Your task to perform on an android device: search for starred emails in the gmail app Image 0: 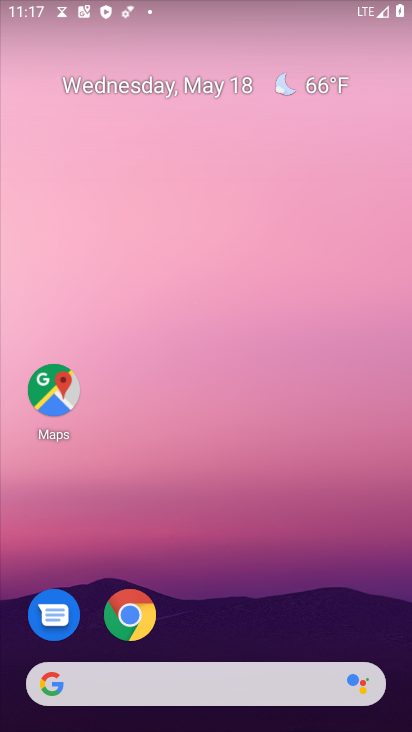
Step 0: drag from (232, 553) to (169, 13)
Your task to perform on an android device: search for starred emails in the gmail app Image 1: 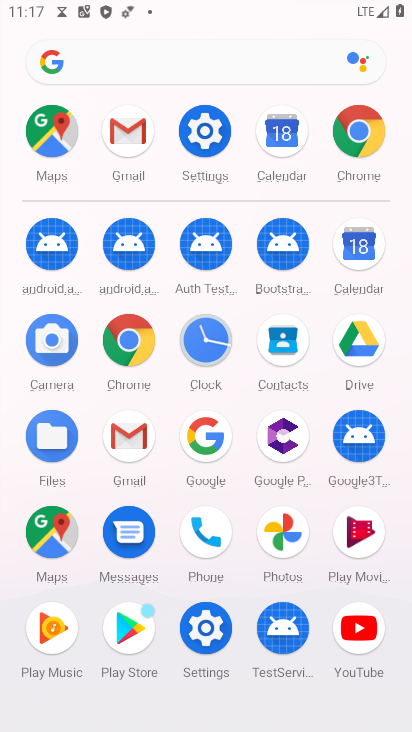
Step 1: drag from (7, 561) to (16, 247)
Your task to perform on an android device: search for starred emails in the gmail app Image 2: 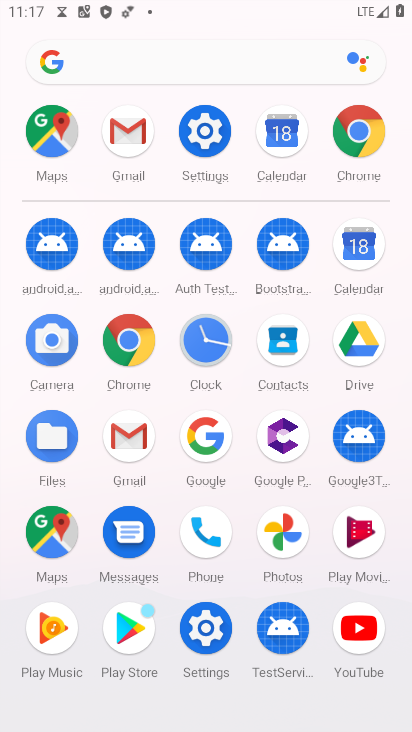
Step 2: click (129, 432)
Your task to perform on an android device: search for starred emails in the gmail app Image 3: 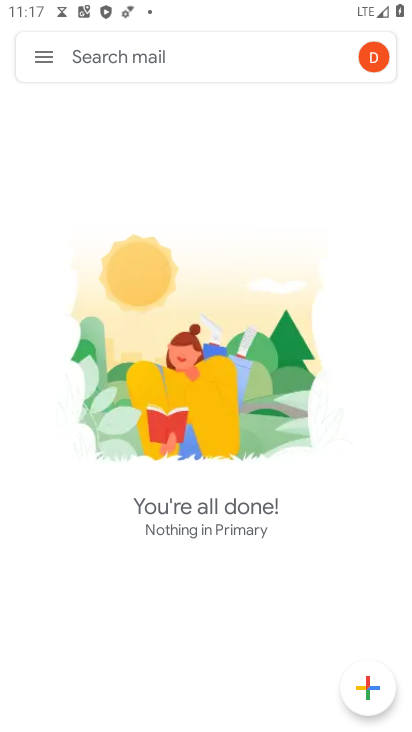
Step 3: click (47, 54)
Your task to perform on an android device: search for starred emails in the gmail app Image 4: 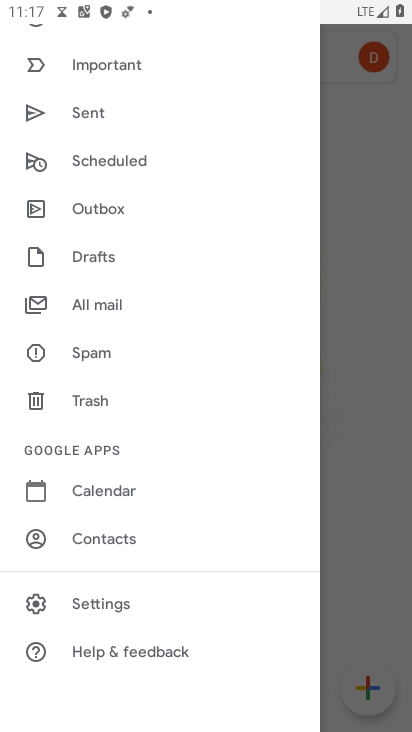
Step 4: drag from (171, 288) to (184, 501)
Your task to perform on an android device: search for starred emails in the gmail app Image 5: 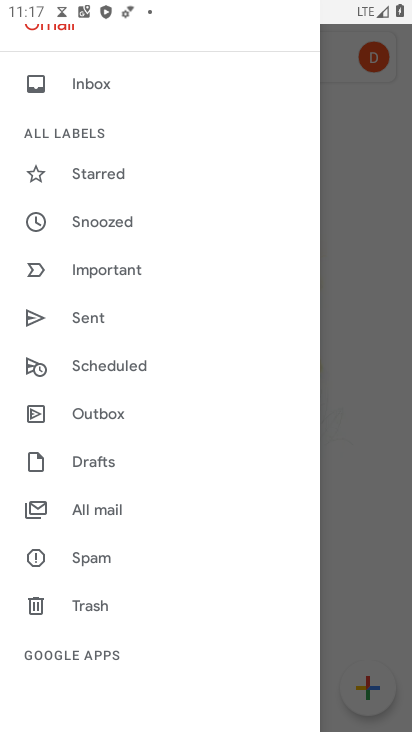
Step 5: click (122, 173)
Your task to perform on an android device: search for starred emails in the gmail app Image 6: 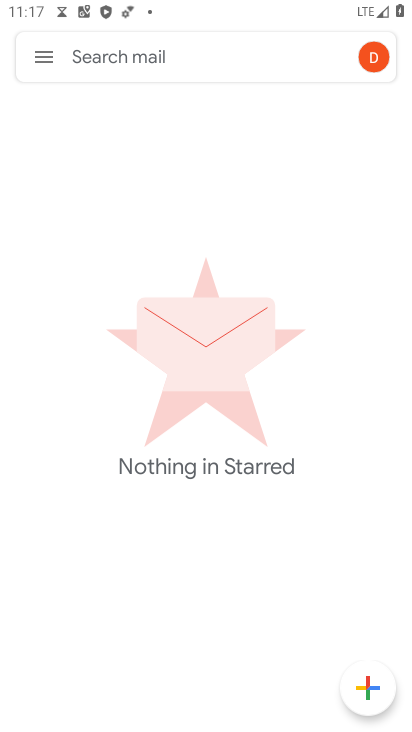
Step 6: task complete